Your task to perform on an android device: Open the map Image 0: 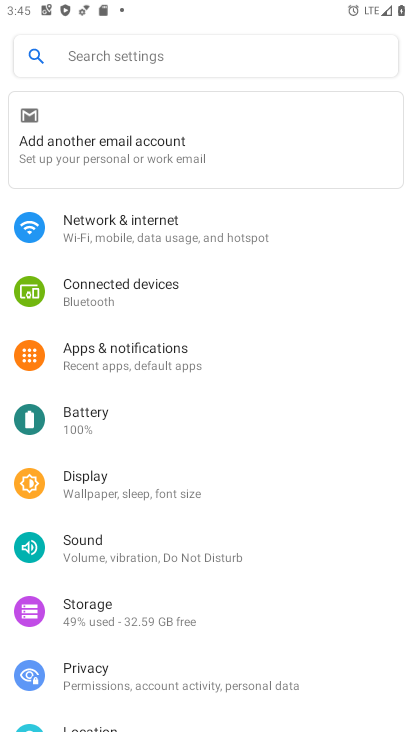
Step 0: press home button
Your task to perform on an android device: Open the map Image 1: 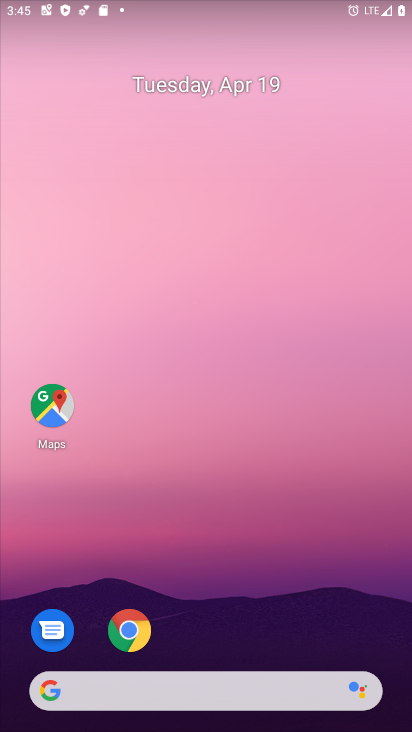
Step 1: drag from (216, 729) to (225, 69)
Your task to perform on an android device: Open the map Image 2: 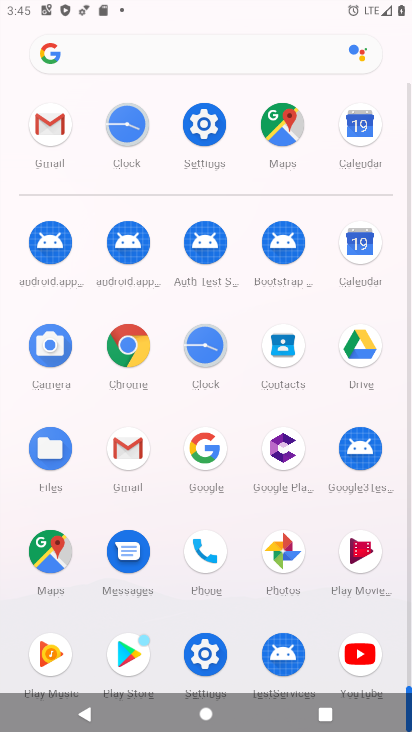
Step 2: click (44, 544)
Your task to perform on an android device: Open the map Image 3: 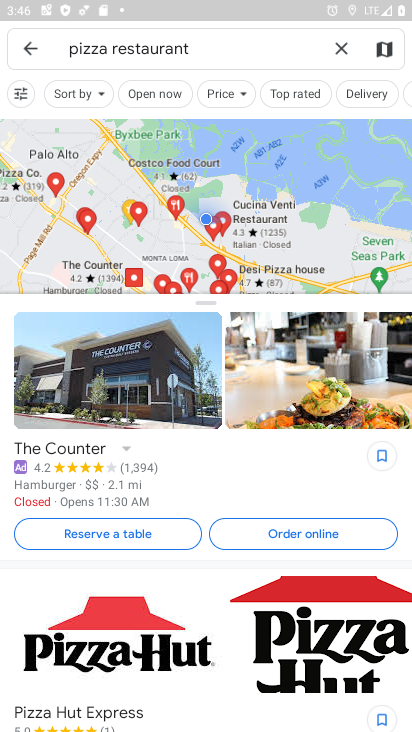
Step 3: task complete